Your task to perform on an android device: Open my contact list Image 0: 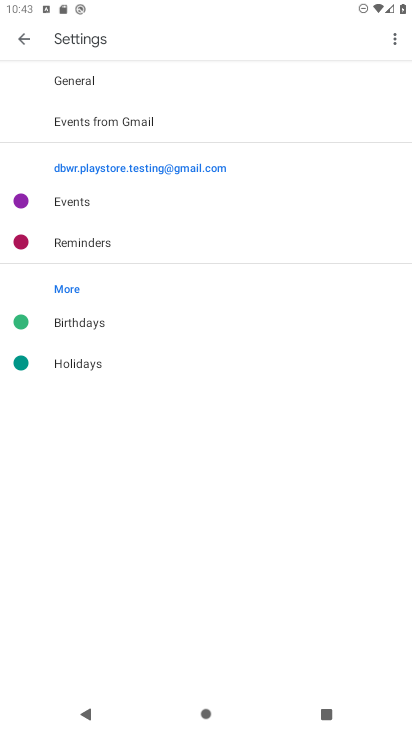
Step 0: click (257, 219)
Your task to perform on an android device: Open my contact list Image 1: 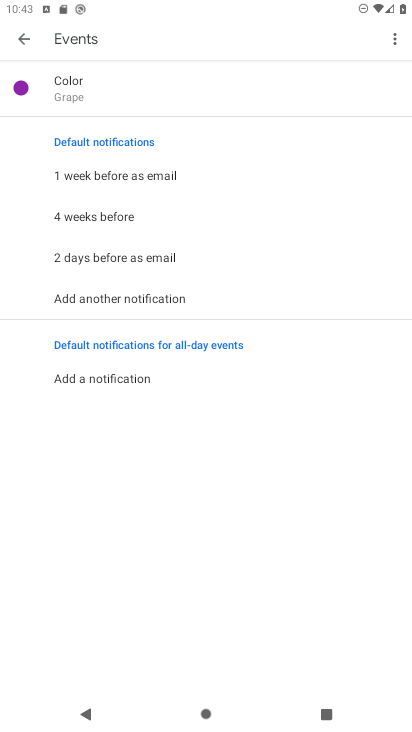
Step 1: press home button
Your task to perform on an android device: Open my contact list Image 2: 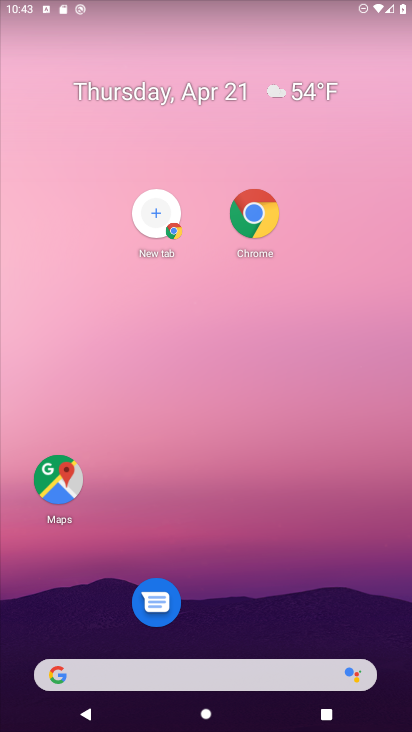
Step 2: drag from (240, 548) to (269, 77)
Your task to perform on an android device: Open my contact list Image 3: 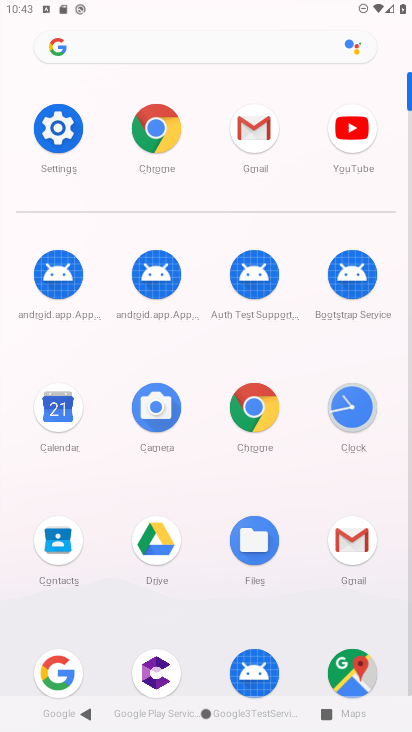
Step 3: click (53, 537)
Your task to perform on an android device: Open my contact list Image 4: 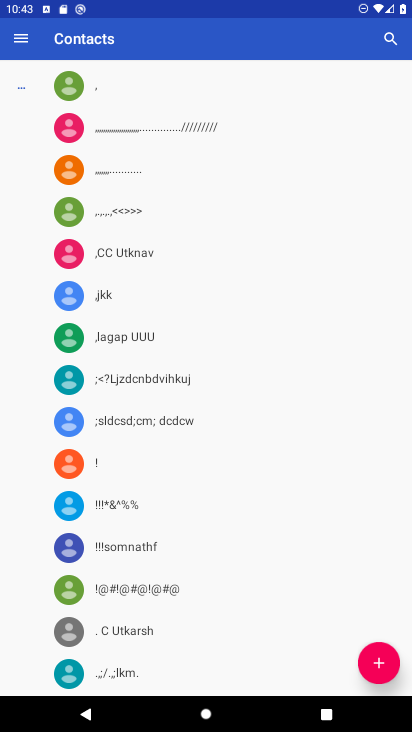
Step 4: task complete